Your task to perform on an android device: Go to ESPN.com Image 0: 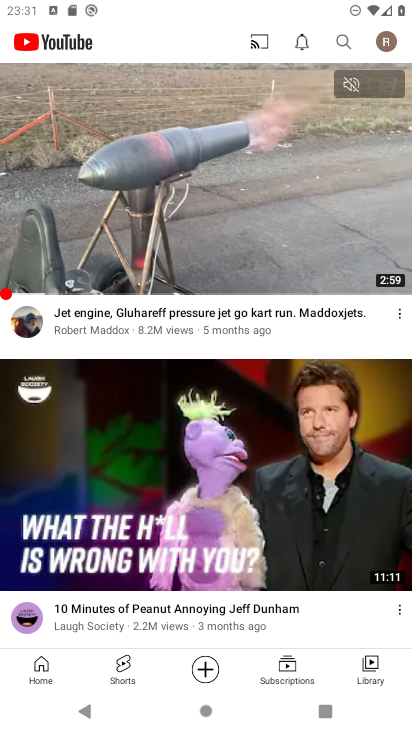
Step 0: press home button
Your task to perform on an android device: Go to ESPN.com Image 1: 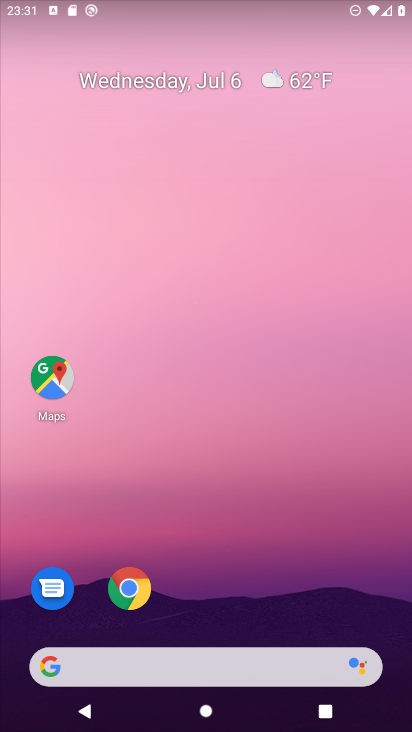
Step 1: click (125, 588)
Your task to perform on an android device: Go to ESPN.com Image 2: 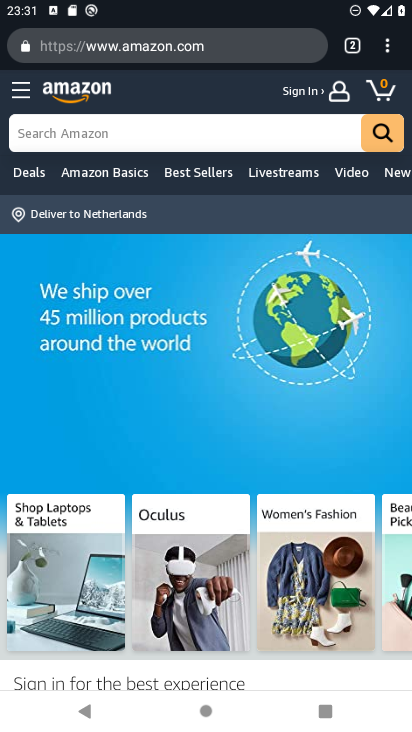
Step 2: click (216, 46)
Your task to perform on an android device: Go to ESPN.com Image 3: 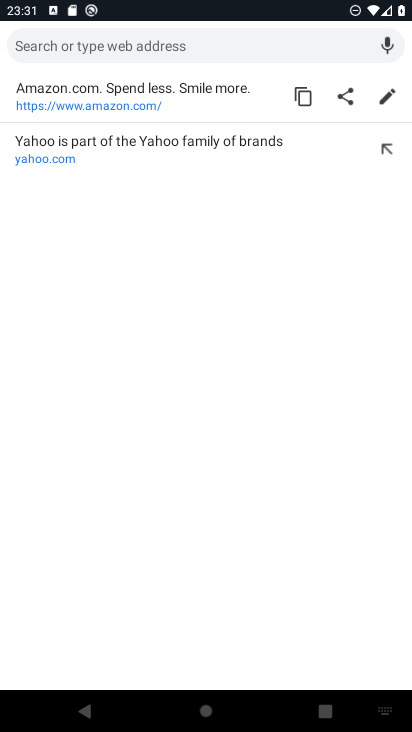
Step 3: type "ESPN.com"
Your task to perform on an android device: Go to ESPN.com Image 4: 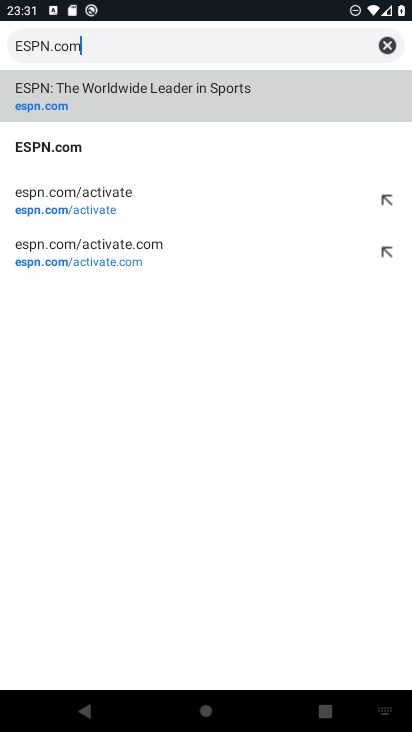
Step 4: click (49, 88)
Your task to perform on an android device: Go to ESPN.com Image 5: 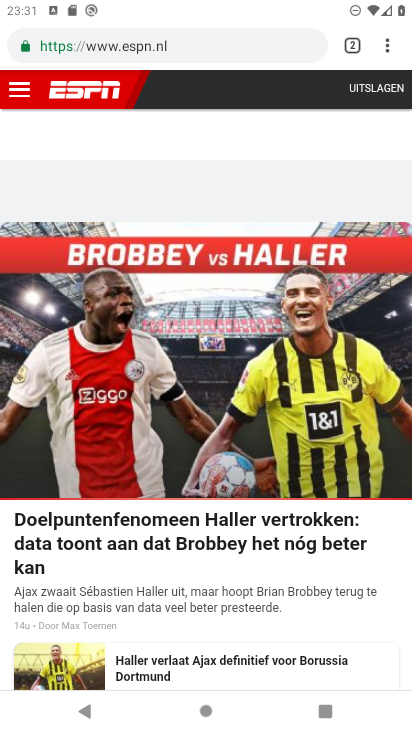
Step 5: task complete